Your task to perform on an android device: set an alarm Image 0: 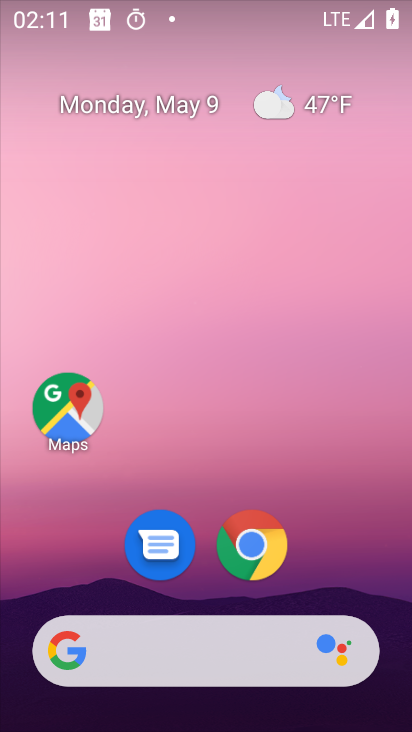
Step 0: drag from (387, 630) to (333, 86)
Your task to perform on an android device: set an alarm Image 1: 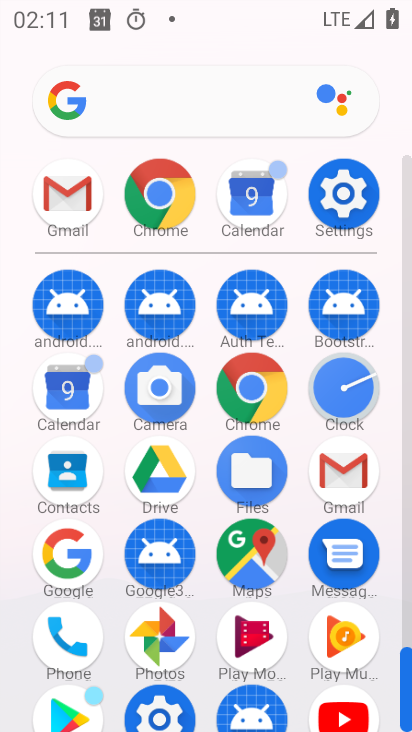
Step 1: click (348, 391)
Your task to perform on an android device: set an alarm Image 2: 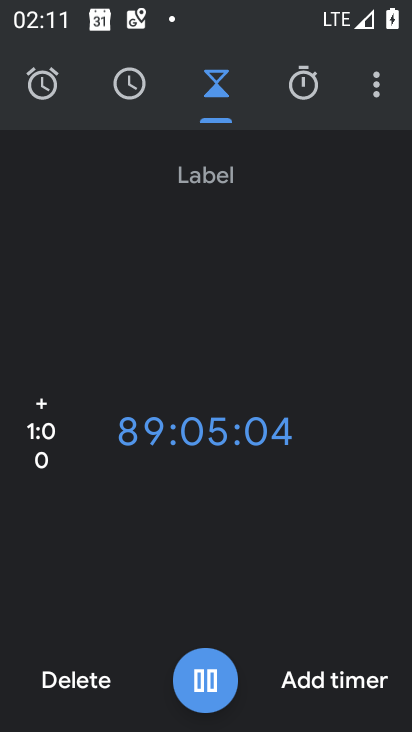
Step 2: click (51, 105)
Your task to perform on an android device: set an alarm Image 3: 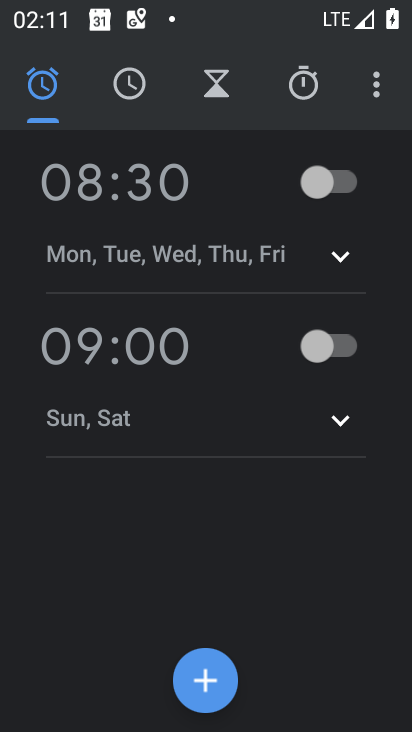
Step 3: click (340, 193)
Your task to perform on an android device: set an alarm Image 4: 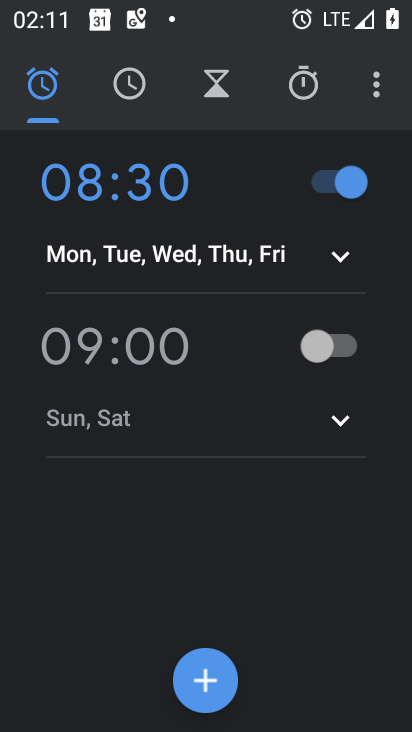
Step 4: task complete